Your task to perform on an android device: Open the map Image 0: 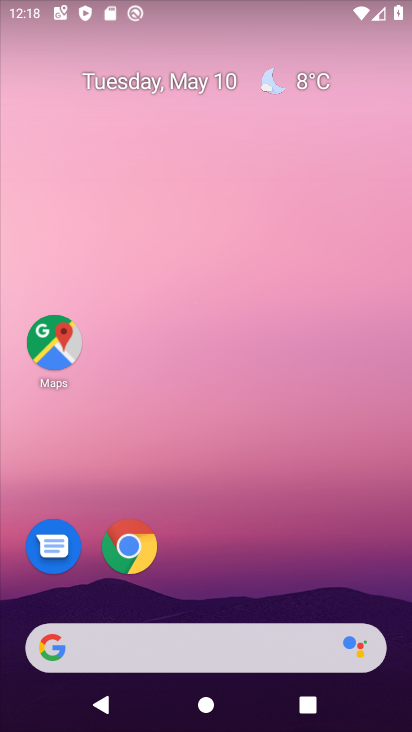
Step 0: drag from (262, 707) to (116, 46)
Your task to perform on an android device: Open the map Image 1: 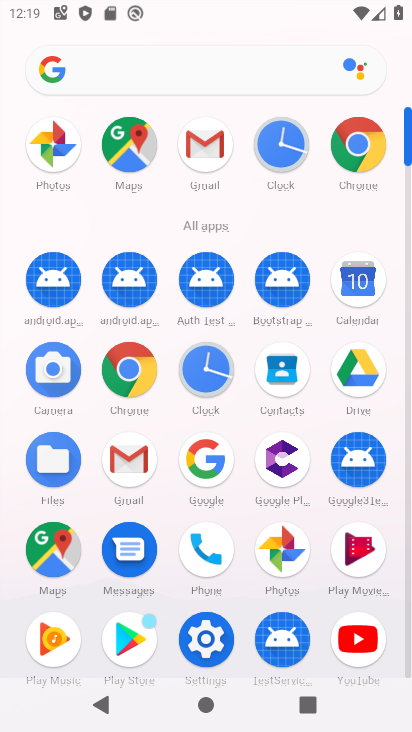
Step 1: click (112, 146)
Your task to perform on an android device: Open the map Image 2: 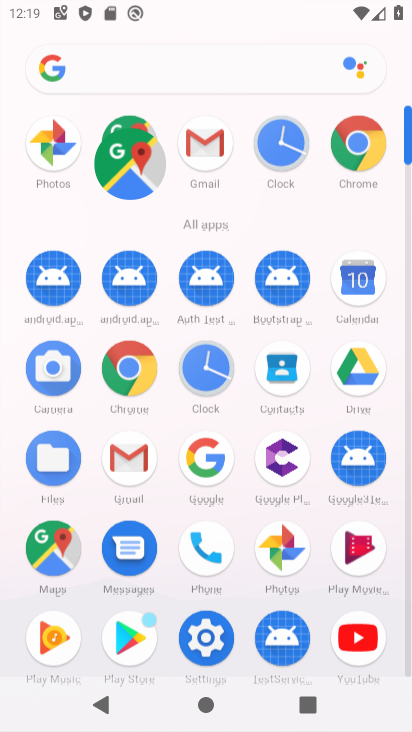
Step 2: click (118, 154)
Your task to perform on an android device: Open the map Image 3: 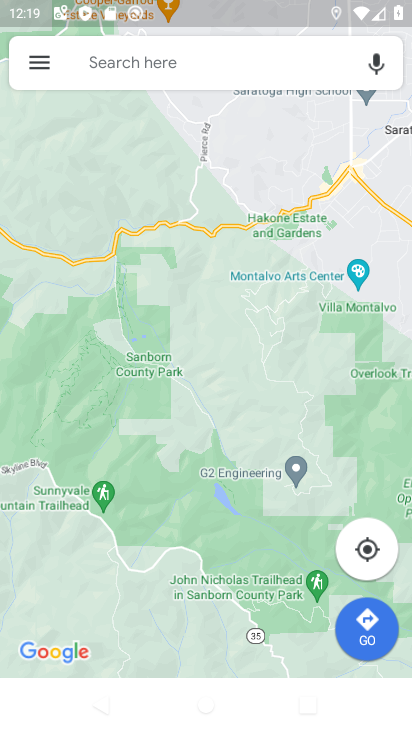
Step 3: task complete